Your task to perform on an android device: turn off sleep mode Image 0: 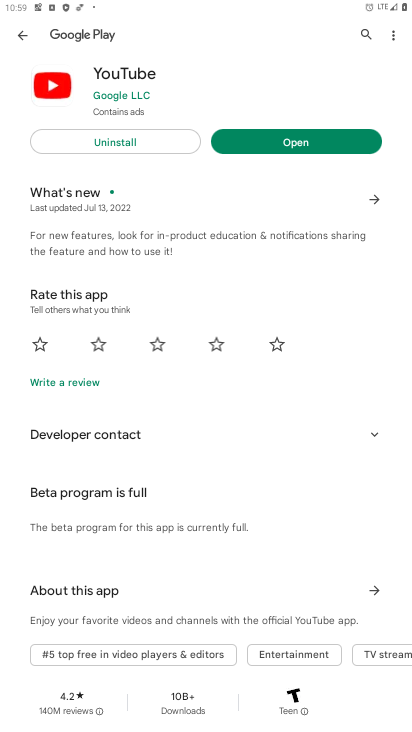
Step 0: press home button
Your task to perform on an android device: turn off sleep mode Image 1: 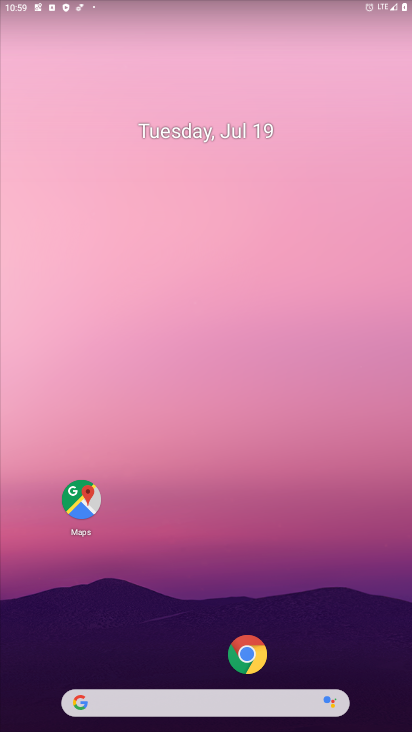
Step 1: drag from (194, 632) to (191, 260)
Your task to perform on an android device: turn off sleep mode Image 2: 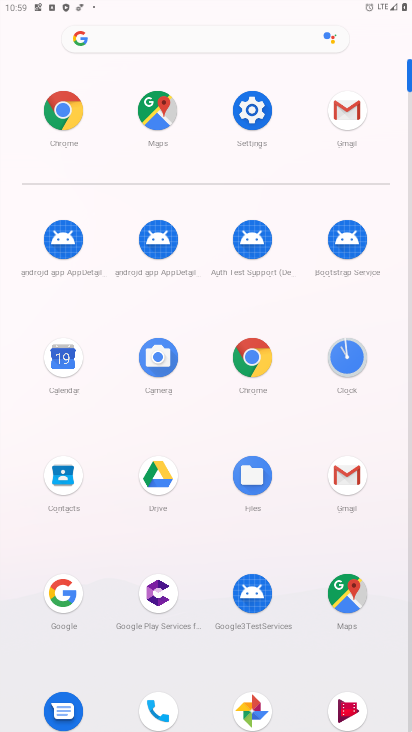
Step 2: click (254, 117)
Your task to perform on an android device: turn off sleep mode Image 3: 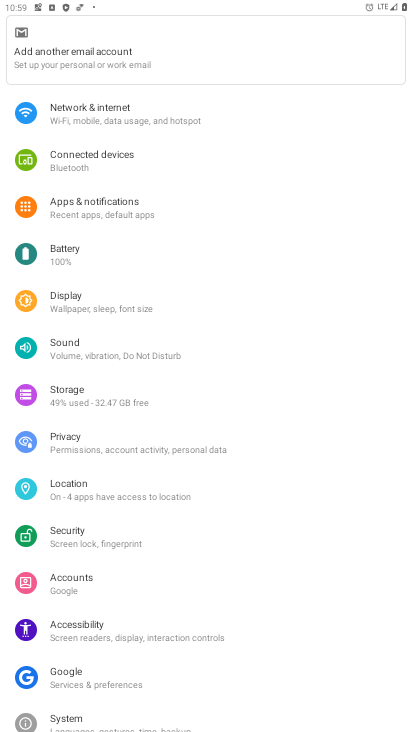
Step 3: task complete